Your task to perform on an android device: What is the recent news? Image 0: 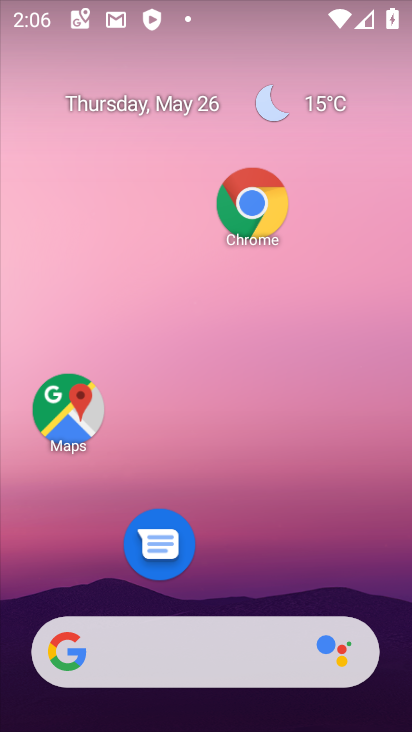
Step 0: click (143, 664)
Your task to perform on an android device: What is the recent news? Image 1: 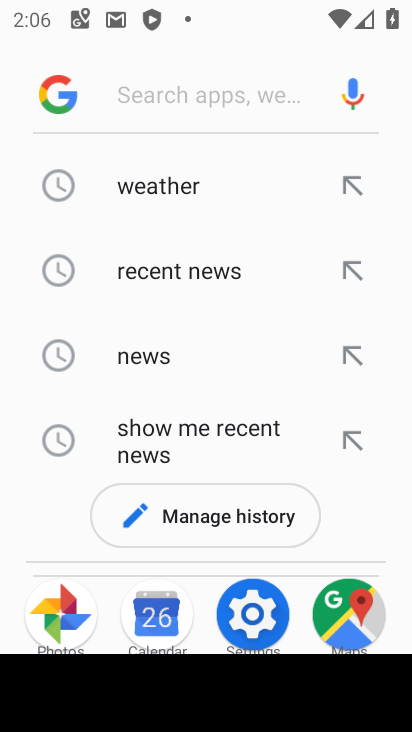
Step 1: click (287, 275)
Your task to perform on an android device: What is the recent news? Image 2: 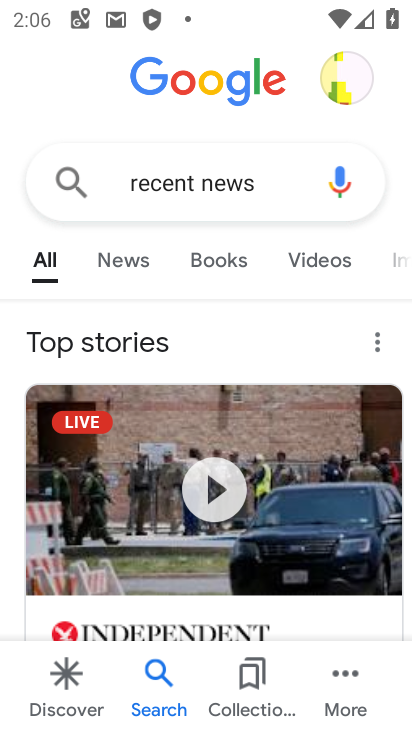
Step 2: task complete